Your task to perform on an android device: Show me productivity apps on the Play Store Image 0: 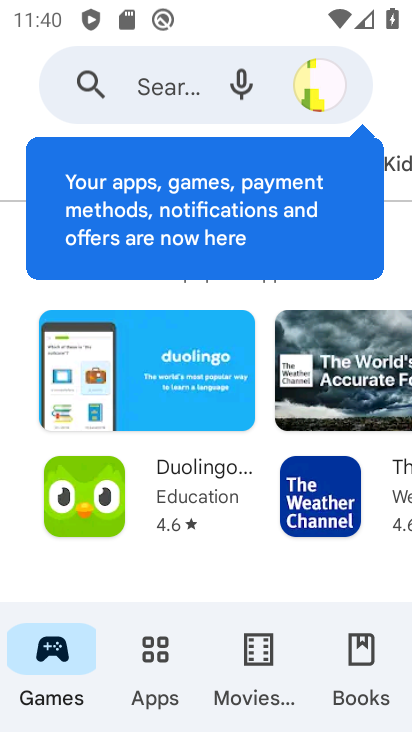
Step 0: press home button
Your task to perform on an android device: Show me productivity apps on the Play Store Image 1: 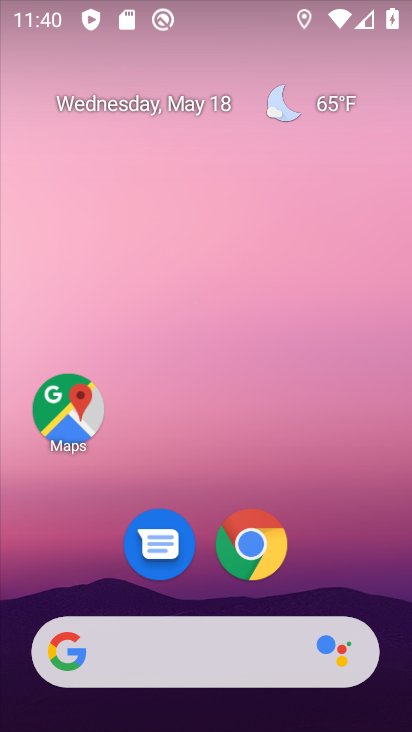
Step 1: drag from (369, 562) to (332, 145)
Your task to perform on an android device: Show me productivity apps on the Play Store Image 2: 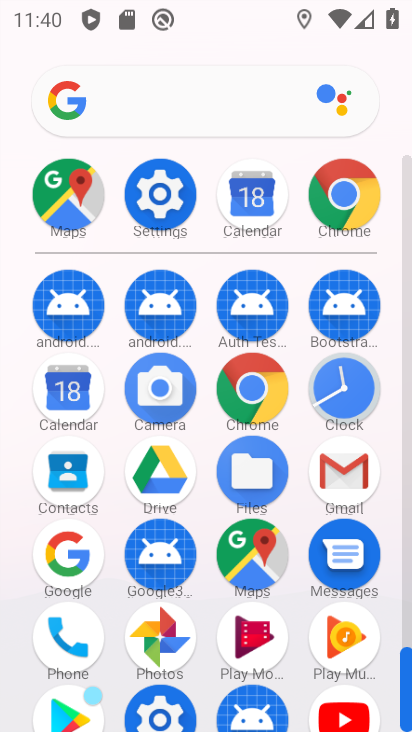
Step 2: drag from (370, 689) to (372, 383)
Your task to perform on an android device: Show me productivity apps on the Play Store Image 3: 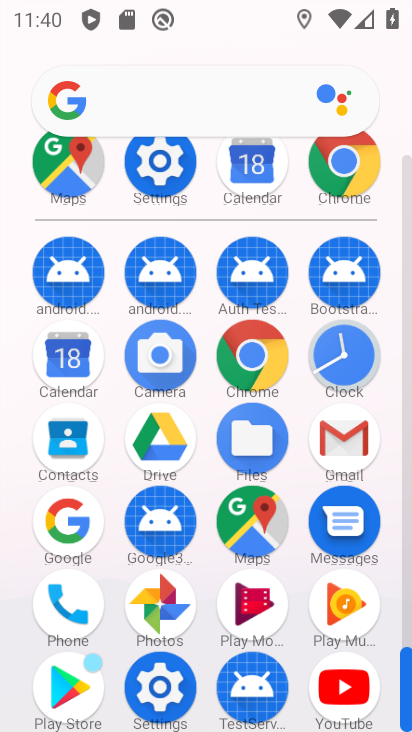
Step 3: click (92, 684)
Your task to perform on an android device: Show me productivity apps on the Play Store Image 4: 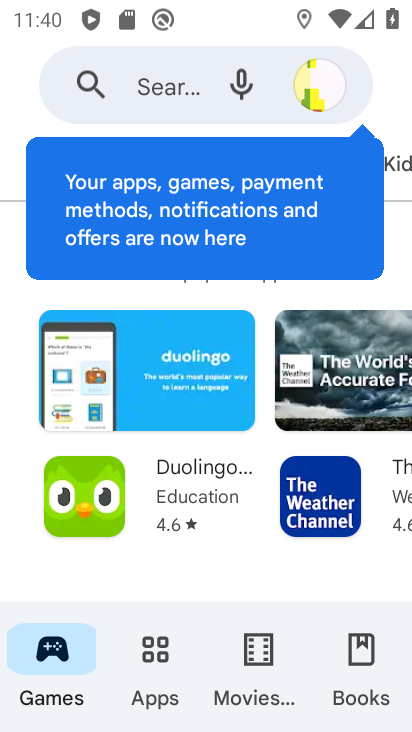
Step 4: click (162, 659)
Your task to perform on an android device: Show me productivity apps on the Play Store Image 5: 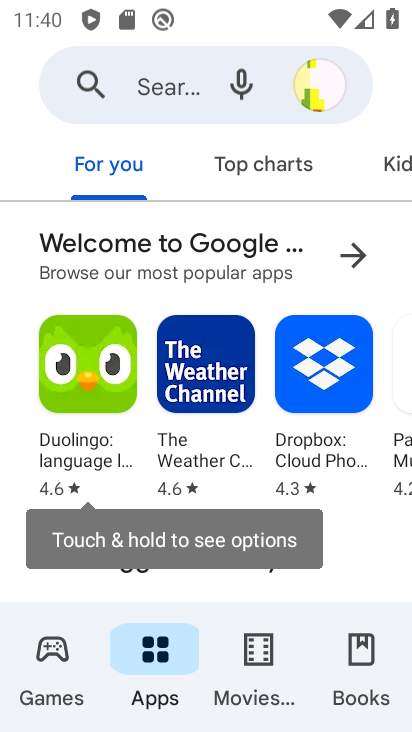
Step 5: task complete